Your task to perform on an android device: Open wifi settings Image 0: 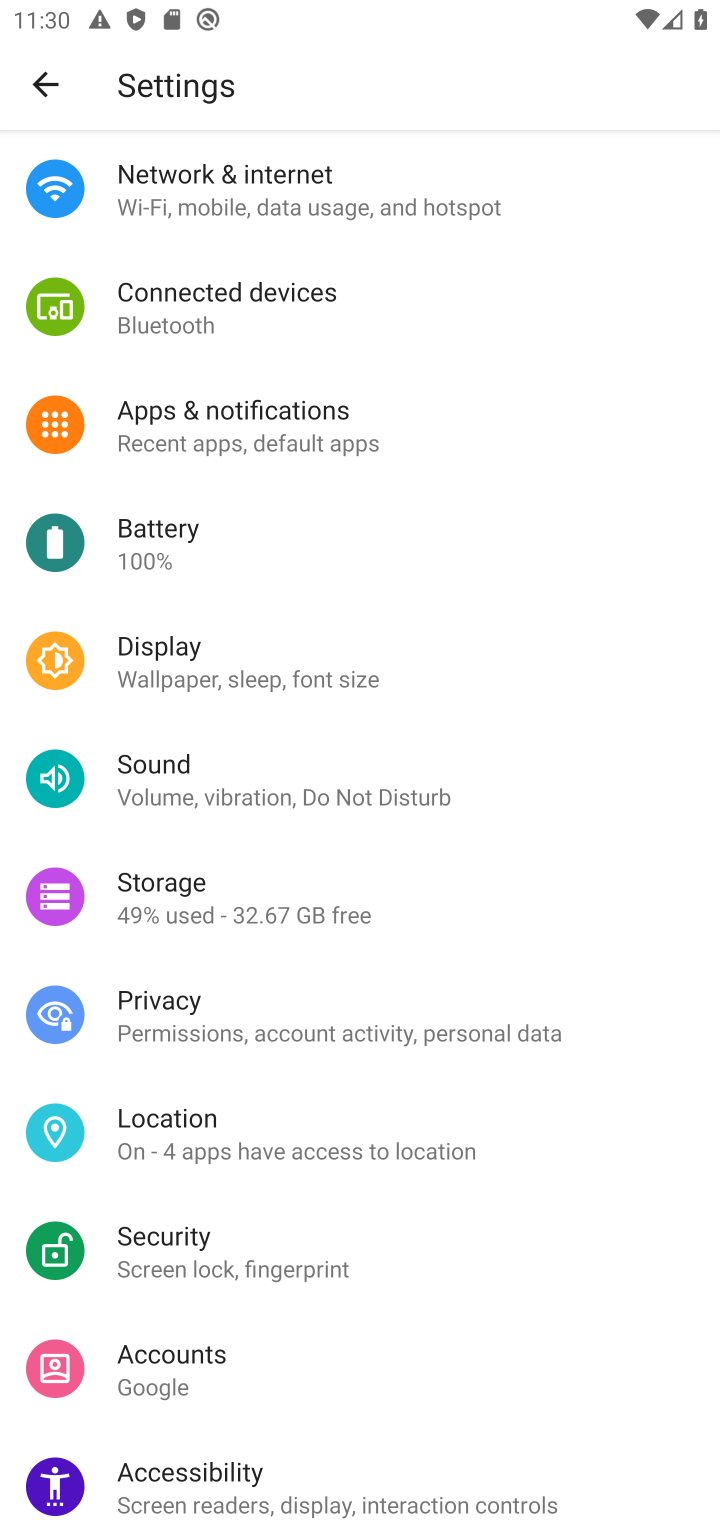
Step 0: click (205, 185)
Your task to perform on an android device: Open wifi settings Image 1: 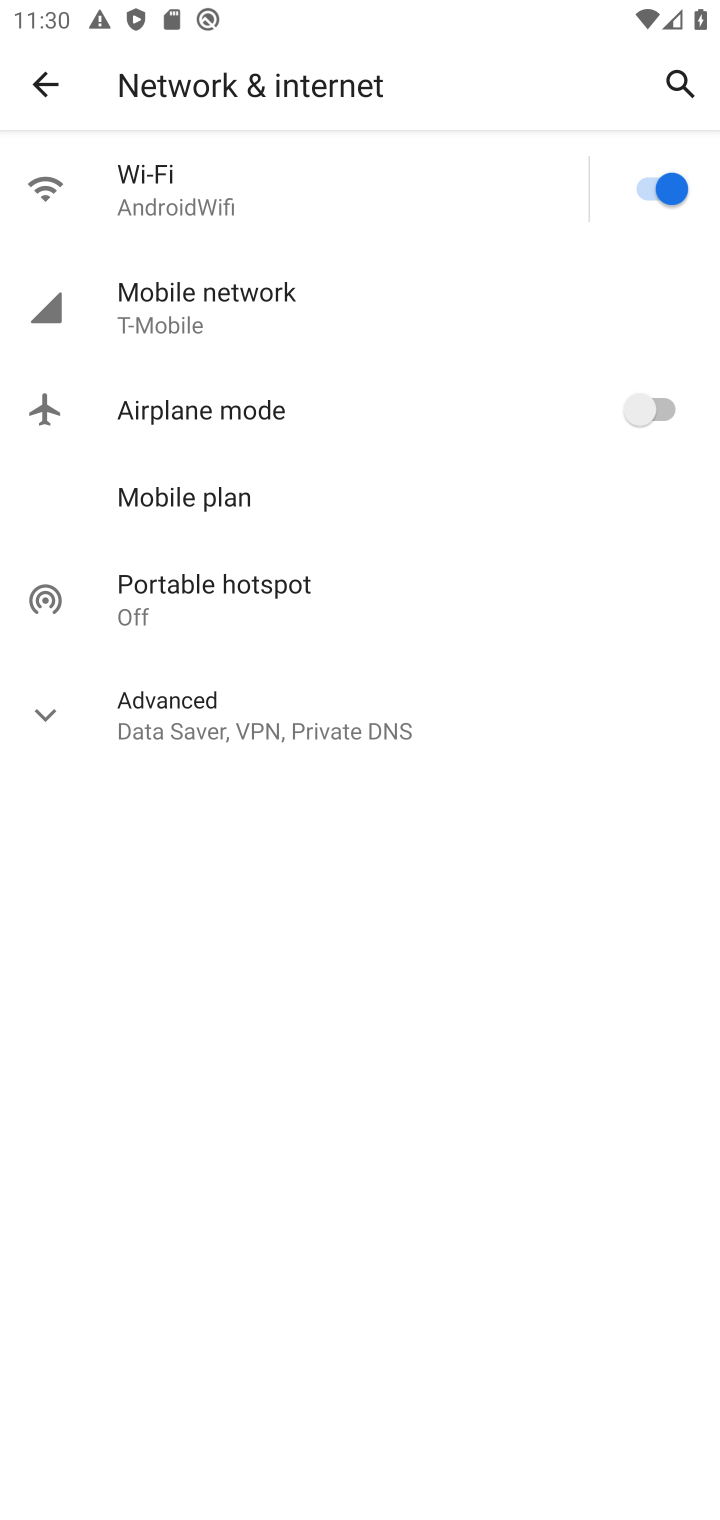
Step 1: click (155, 192)
Your task to perform on an android device: Open wifi settings Image 2: 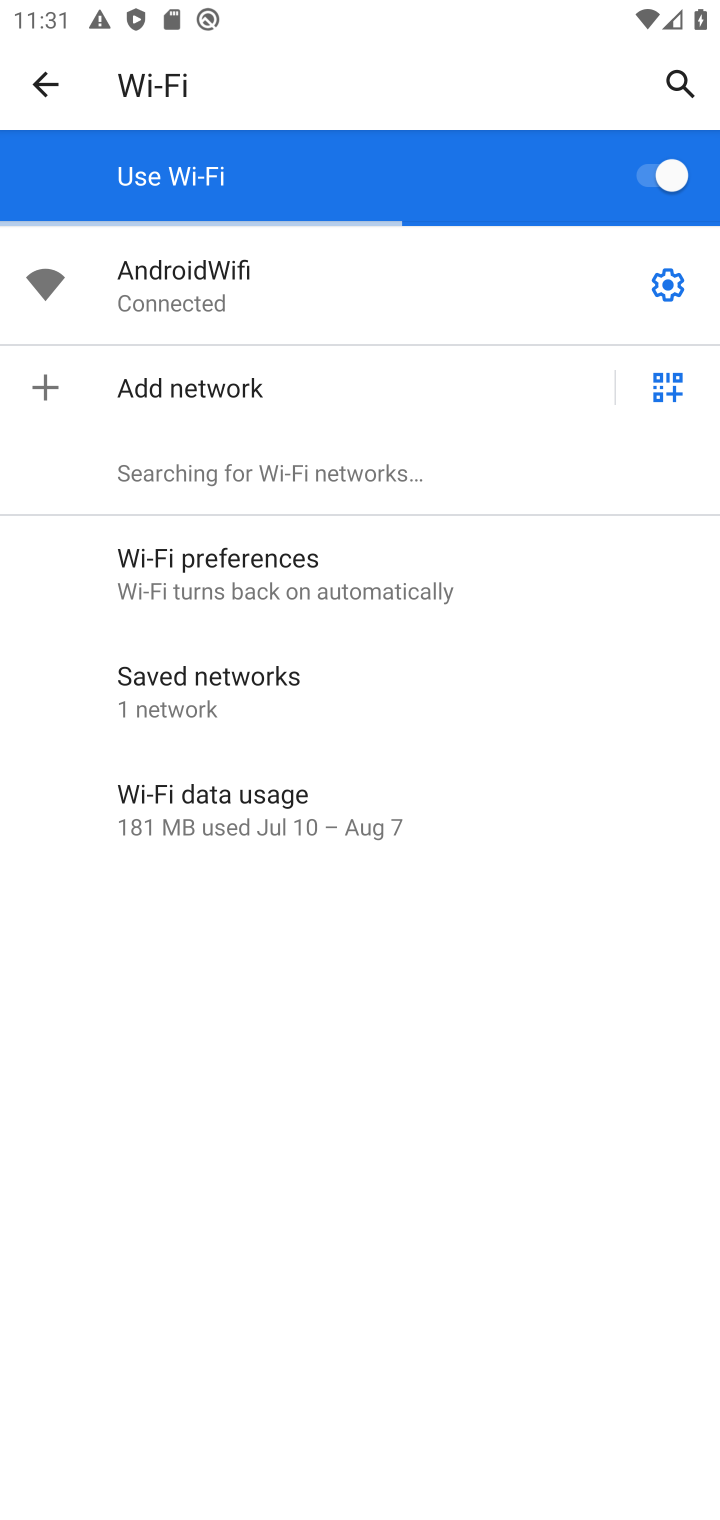
Step 2: task complete